Your task to perform on an android device: When is my next appointment? Image 0: 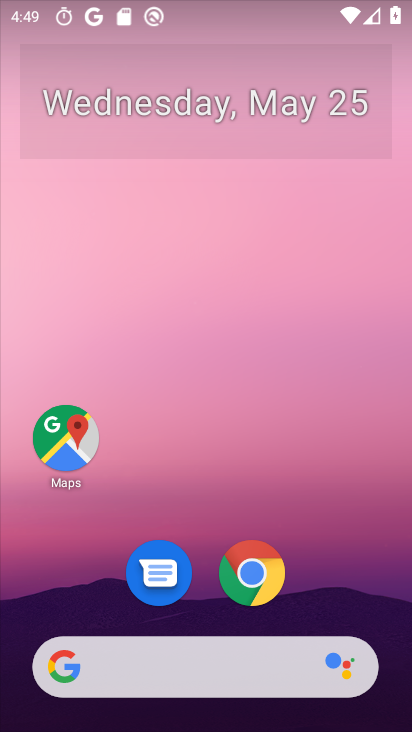
Step 0: drag from (228, 678) to (206, 95)
Your task to perform on an android device: When is my next appointment? Image 1: 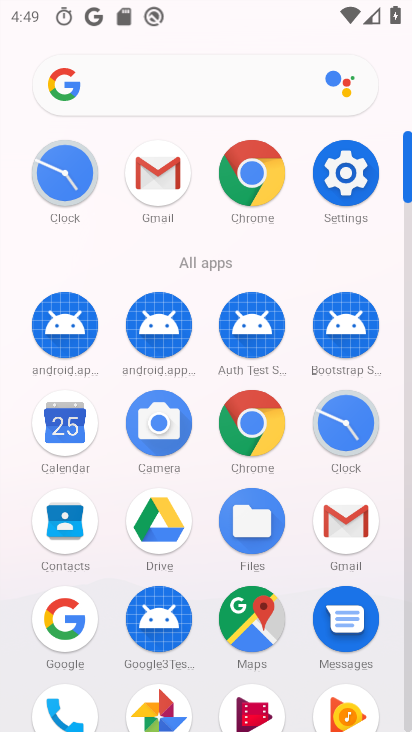
Step 1: click (67, 436)
Your task to perform on an android device: When is my next appointment? Image 2: 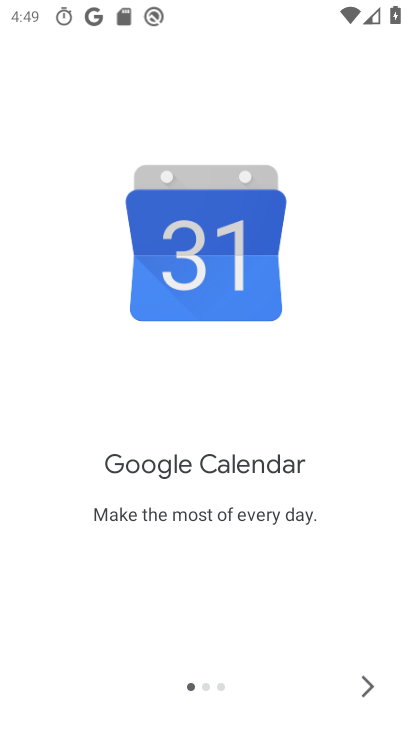
Step 2: click (367, 683)
Your task to perform on an android device: When is my next appointment? Image 3: 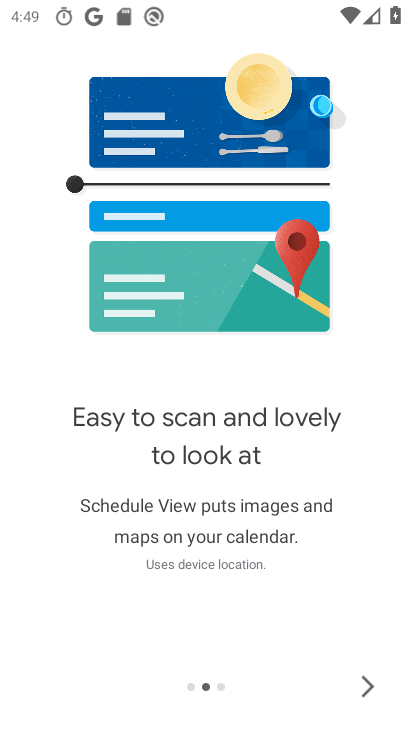
Step 3: click (366, 680)
Your task to perform on an android device: When is my next appointment? Image 4: 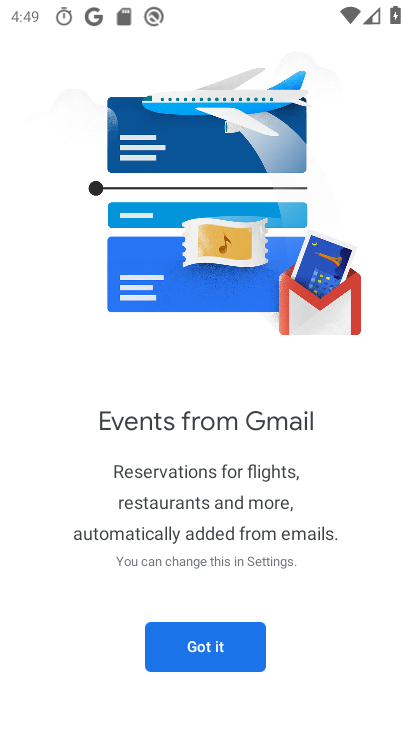
Step 4: click (177, 648)
Your task to perform on an android device: When is my next appointment? Image 5: 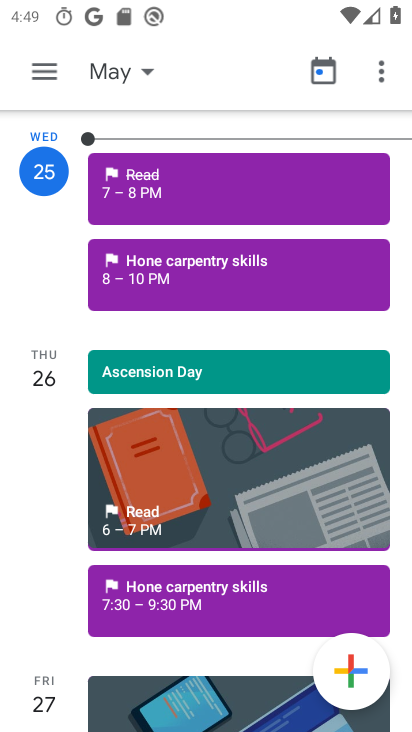
Step 5: click (144, 73)
Your task to perform on an android device: When is my next appointment? Image 6: 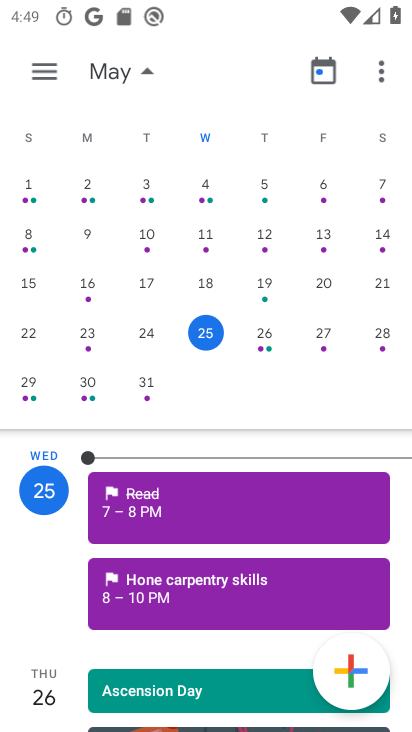
Step 6: click (266, 325)
Your task to perform on an android device: When is my next appointment? Image 7: 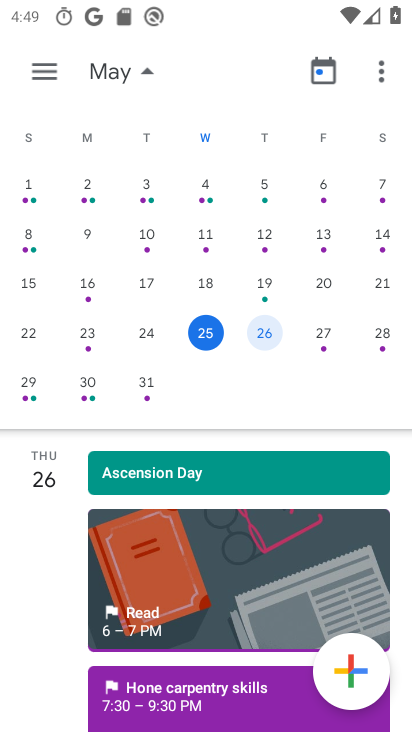
Step 7: click (266, 325)
Your task to perform on an android device: When is my next appointment? Image 8: 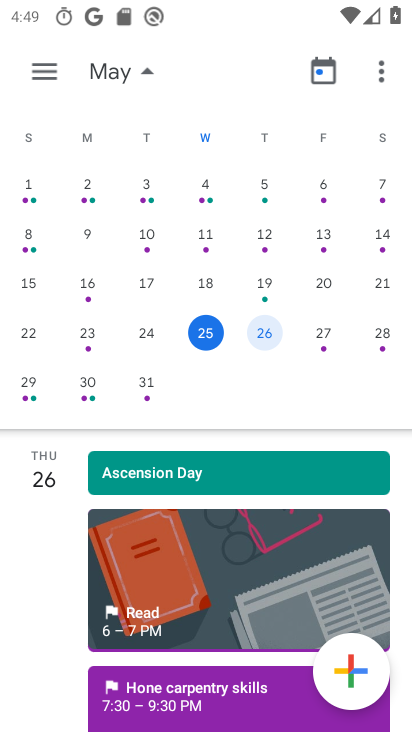
Step 8: click (147, 69)
Your task to perform on an android device: When is my next appointment? Image 9: 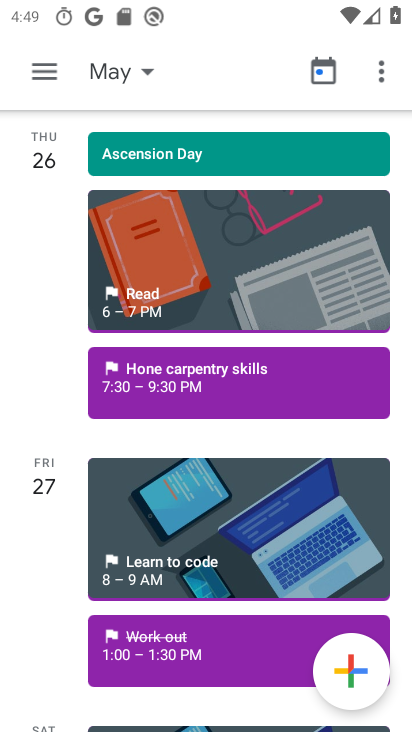
Step 9: task complete